Your task to perform on an android device: Search for seafood restaurants on Google Maps Image 0: 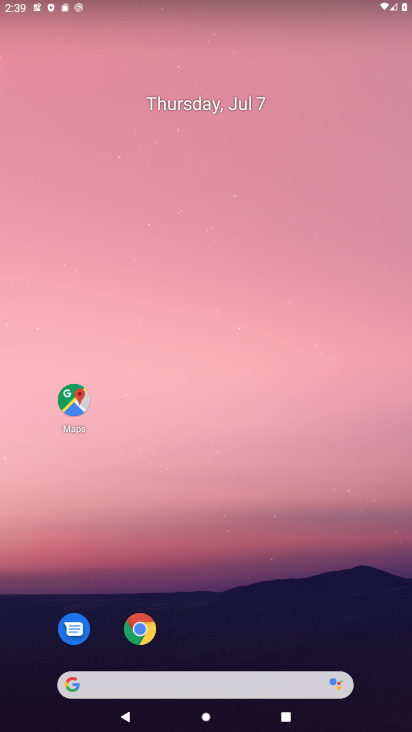
Step 0: click (152, 618)
Your task to perform on an android device: Search for seafood restaurants on Google Maps Image 1: 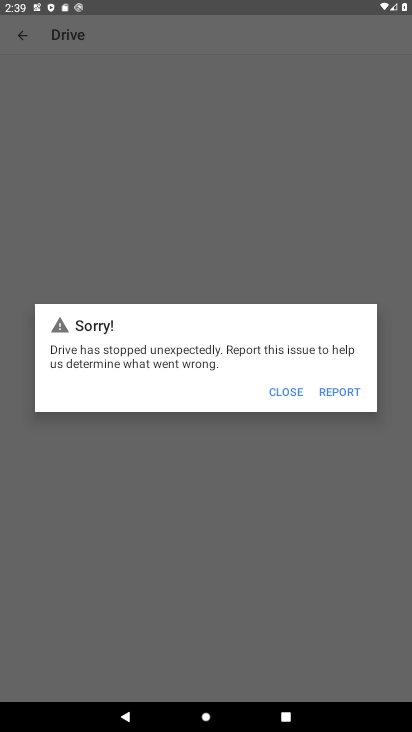
Step 1: press home button
Your task to perform on an android device: Search for seafood restaurants on Google Maps Image 2: 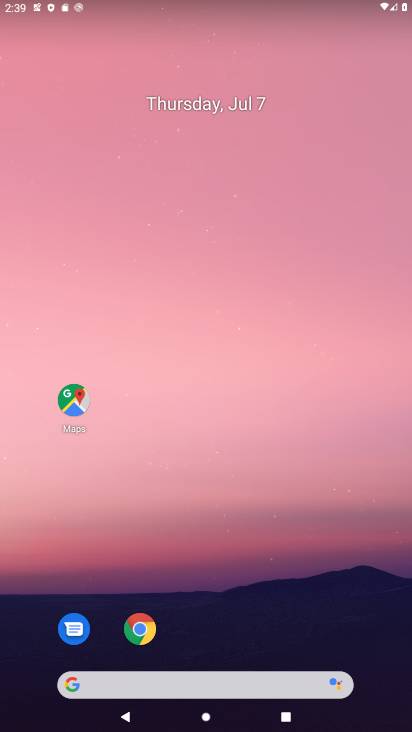
Step 2: click (79, 394)
Your task to perform on an android device: Search for seafood restaurants on Google Maps Image 3: 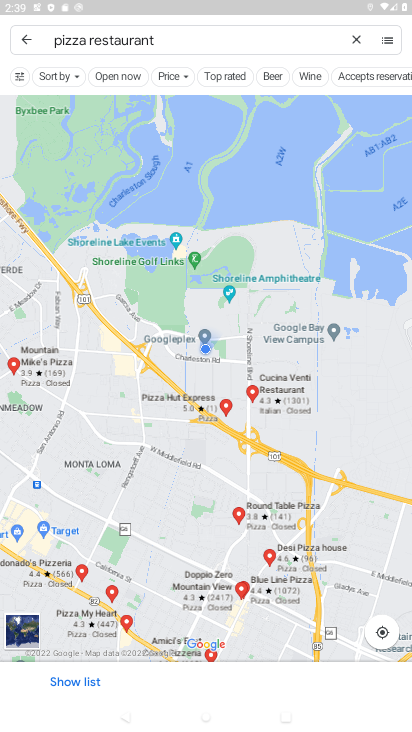
Step 3: click (353, 34)
Your task to perform on an android device: Search for seafood restaurants on Google Maps Image 4: 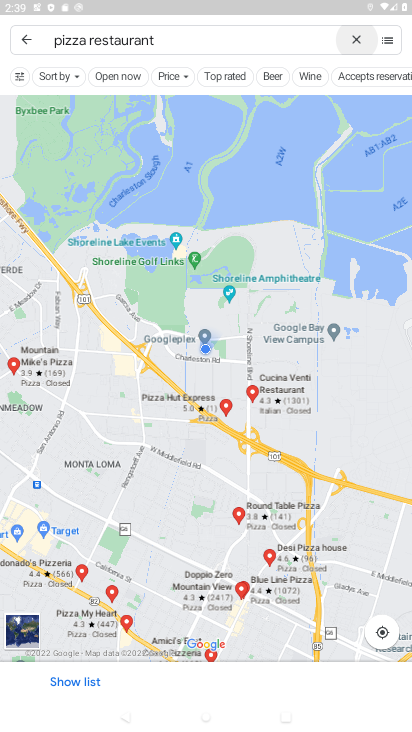
Step 4: click (230, 37)
Your task to perform on an android device: Search for seafood restaurants on Google Maps Image 5: 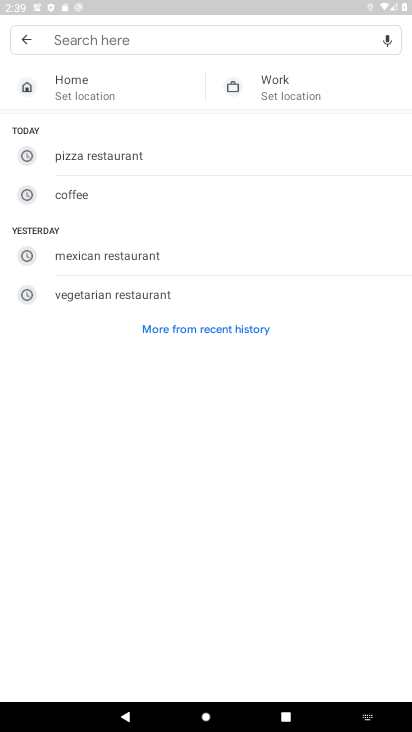
Step 5: click (237, 327)
Your task to perform on an android device: Search for seafood restaurants on Google Maps Image 6: 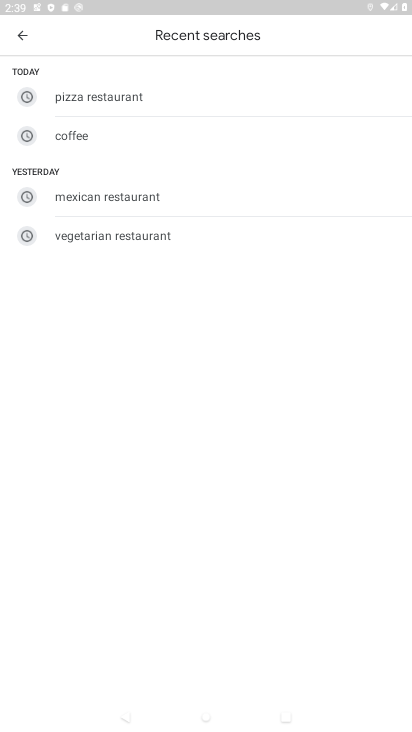
Step 6: click (14, 33)
Your task to perform on an android device: Search for seafood restaurants on Google Maps Image 7: 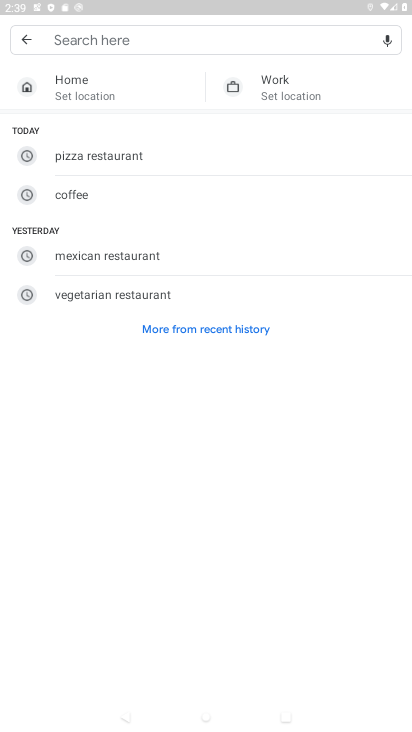
Step 7: click (101, 45)
Your task to perform on an android device: Search for seafood restaurants on Google Maps Image 8: 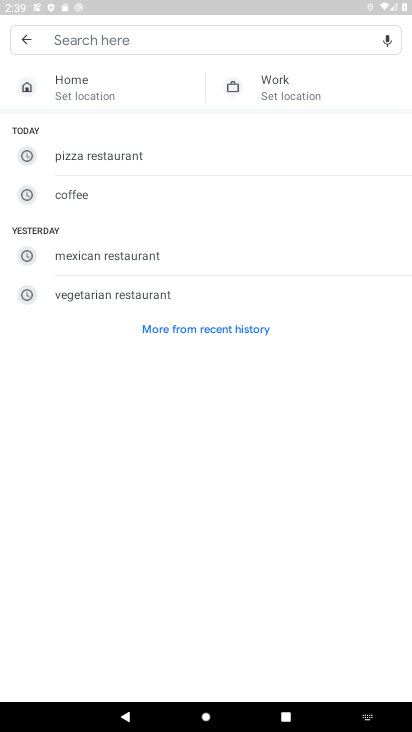
Step 8: type "se"
Your task to perform on an android device: Search for seafood restaurants on Google Maps Image 9: 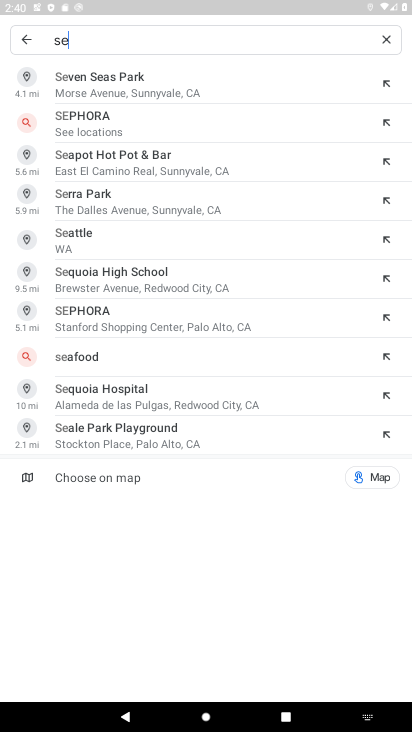
Step 9: type "seafood rwwstaurant"
Your task to perform on an android device: Search for seafood restaurants on Google Maps Image 10: 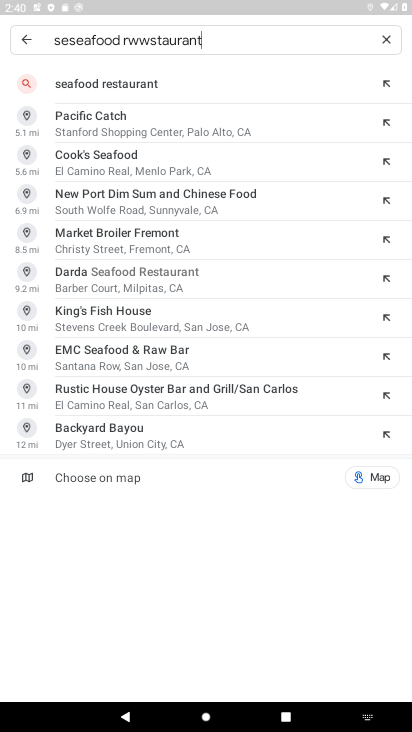
Step 10: click (103, 98)
Your task to perform on an android device: Search for seafood restaurants on Google Maps Image 11: 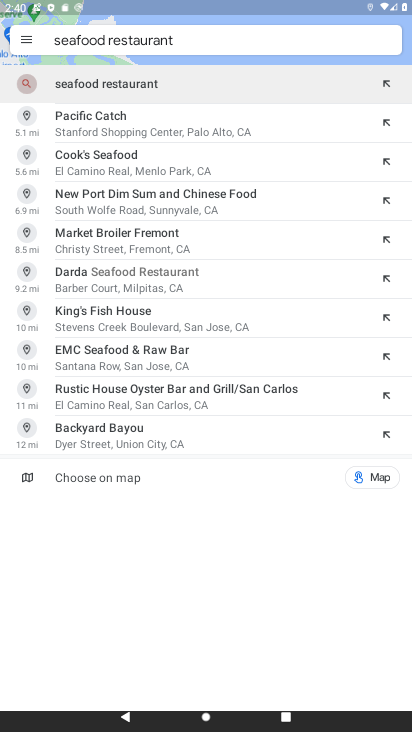
Step 11: click (103, 98)
Your task to perform on an android device: Search for seafood restaurants on Google Maps Image 12: 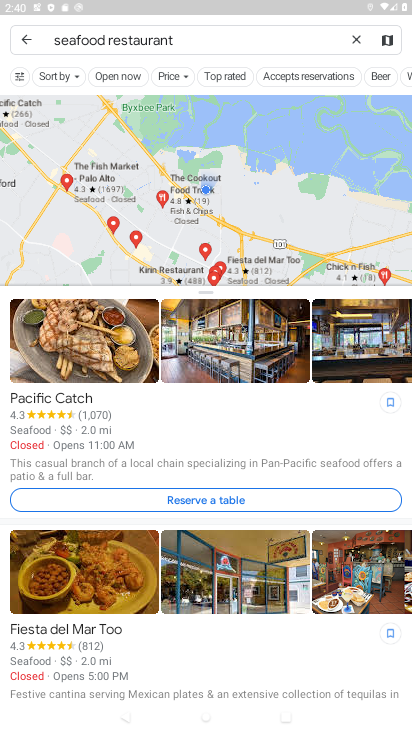
Step 12: task complete